Your task to perform on an android device: Do I have any events tomorrow? Image 0: 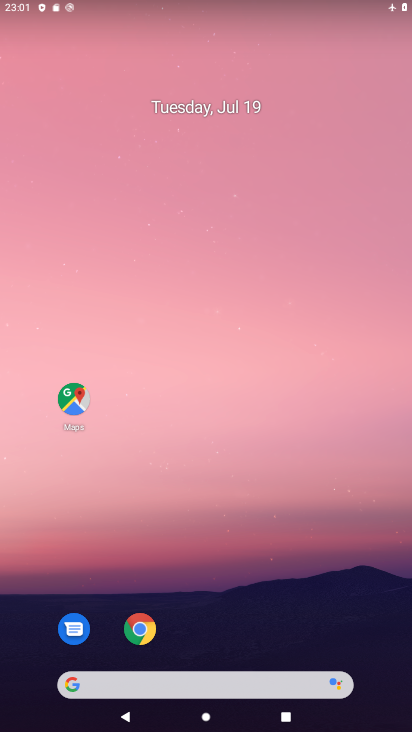
Step 0: press home button
Your task to perform on an android device: Do I have any events tomorrow? Image 1: 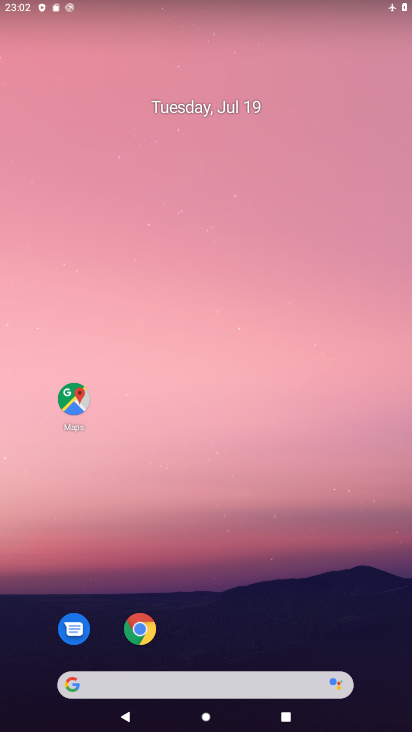
Step 1: drag from (224, 652) to (264, 74)
Your task to perform on an android device: Do I have any events tomorrow? Image 2: 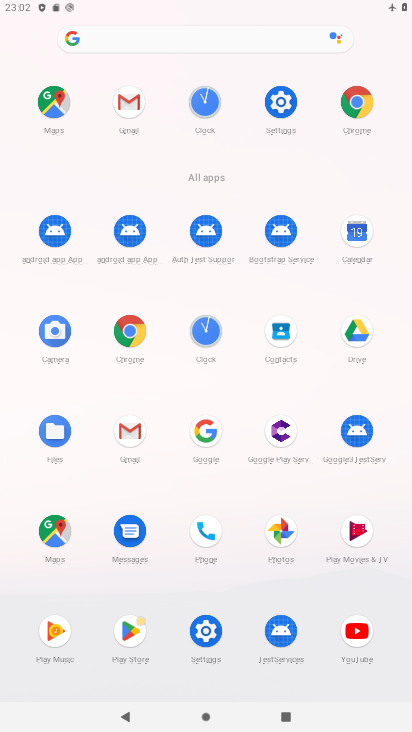
Step 2: click (350, 225)
Your task to perform on an android device: Do I have any events tomorrow? Image 3: 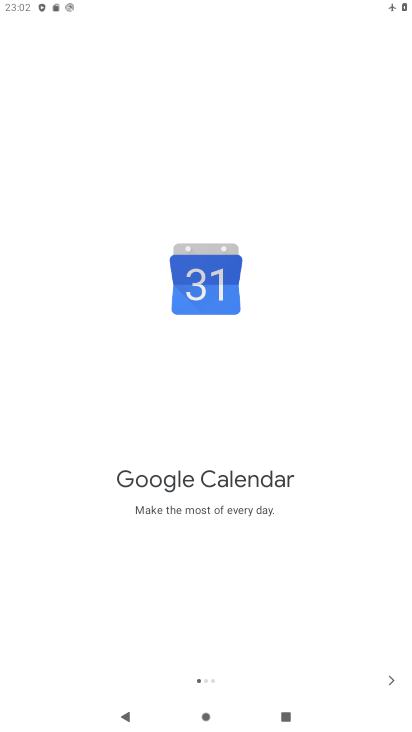
Step 3: click (392, 680)
Your task to perform on an android device: Do I have any events tomorrow? Image 4: 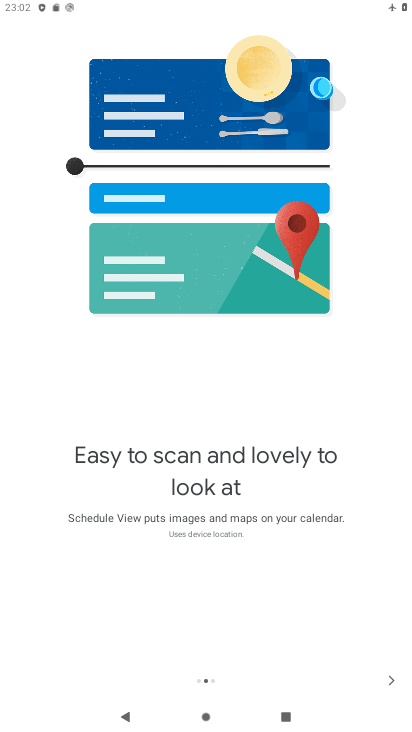
Step 4: click (392, 680)
Your task to perform on an android device: Do I have any events tomorrow? Image 5: 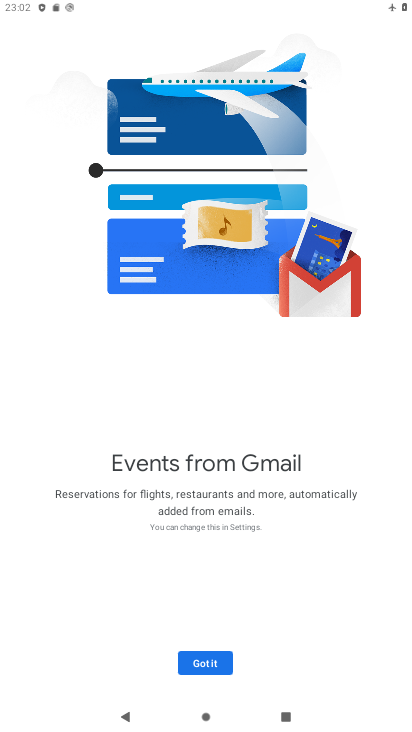
Step 5: click (195, 658)
Your task to perform on an android device: Do I have any events tomorrow? Image 6: 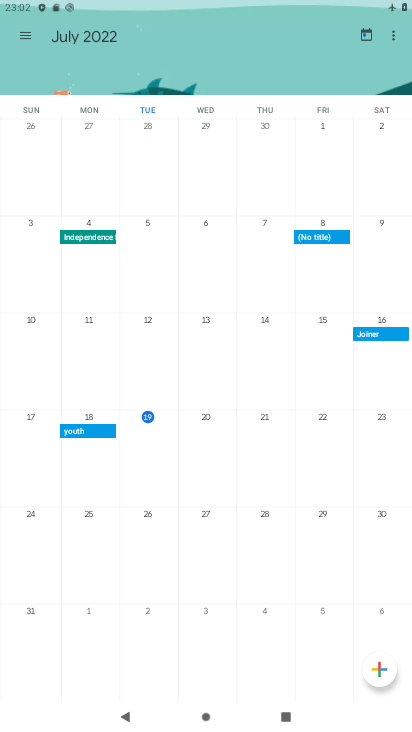
Step 6: click (22, 36)
Your task to perform on an android device: Do I have any events tomorrow? Image 7: 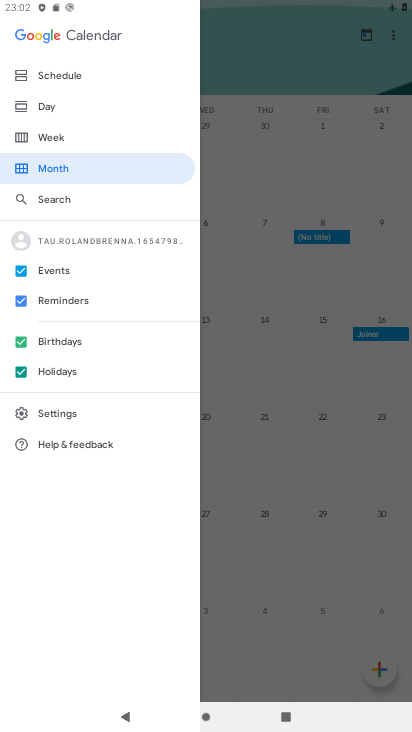
Step 7: click (22, 374)
Your task to perform on an android device: Do I have any events tomorrow? Image 8: 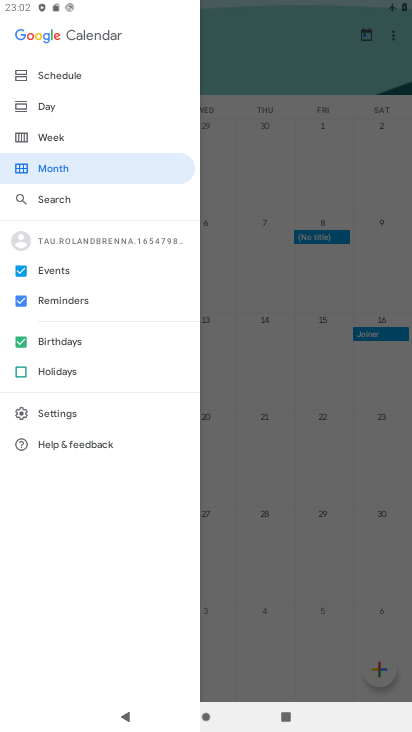
Step 8: click (22, 339)
Your task to perform on an android device: Do I have any events tomorrow? Image 9: 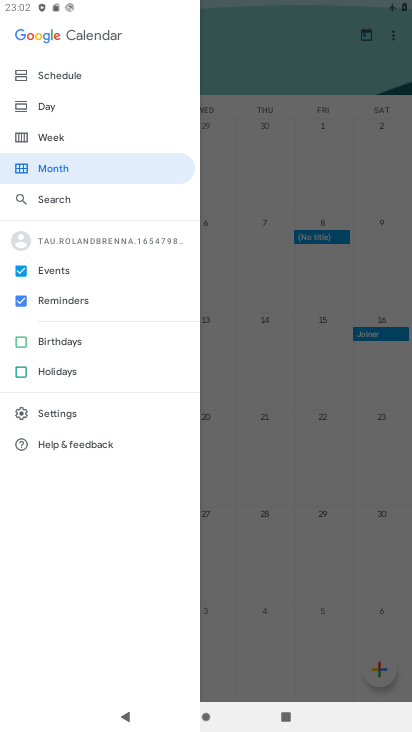
Step 9: click (22, 300)
Your task to perform on an android device: Do I have any events tomorrow? Image 10: 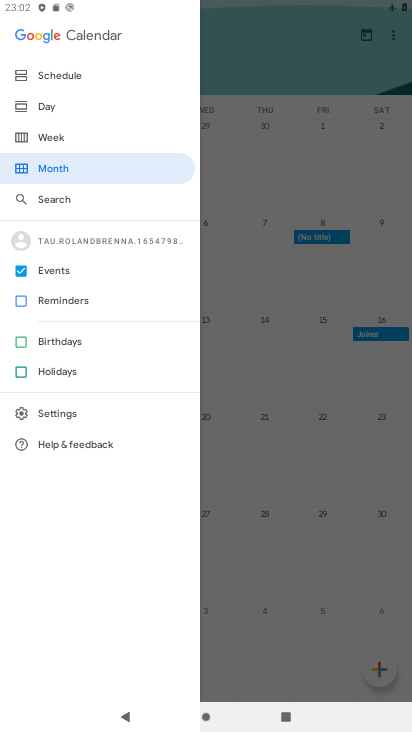
Step 10: click (41, 100)
Your task to perform on an android device: Do I have any events tomorrow? Image 11: 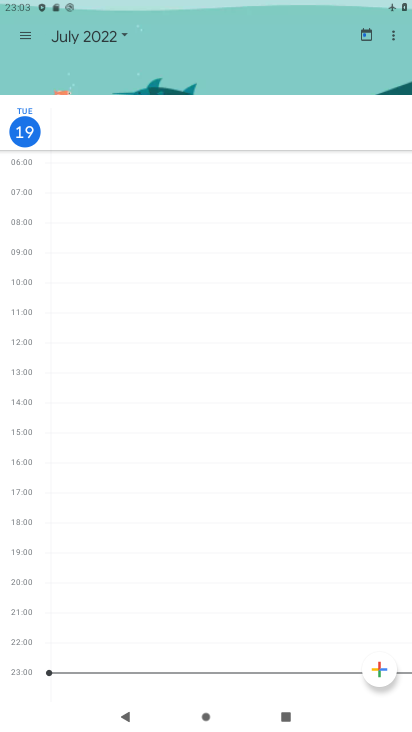
Step 11: click (123, 33)
Your task to perform on an android device: Do I have any events tomorrow? Image 12: 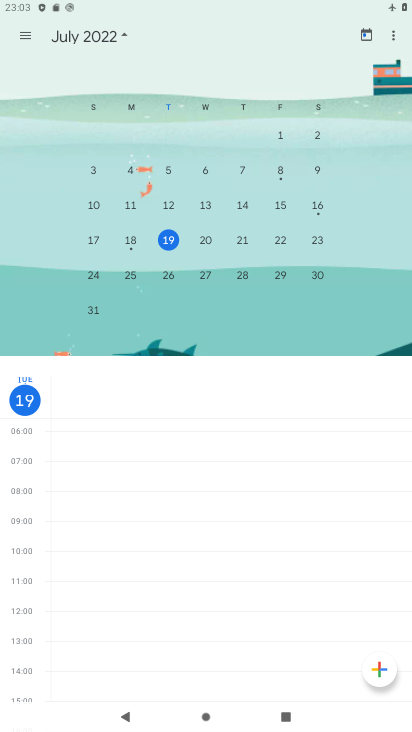
Step 12: click (205, 236)
Your task to perform on an android device: Do I have any events tomorrow? Image 13: 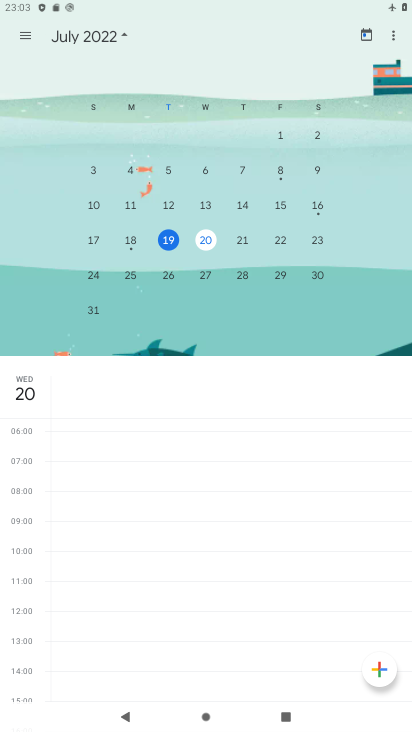
Step 13: click (32, 393)
Your task to perform on an android device: Do I have any events tomorrow? Image 14: 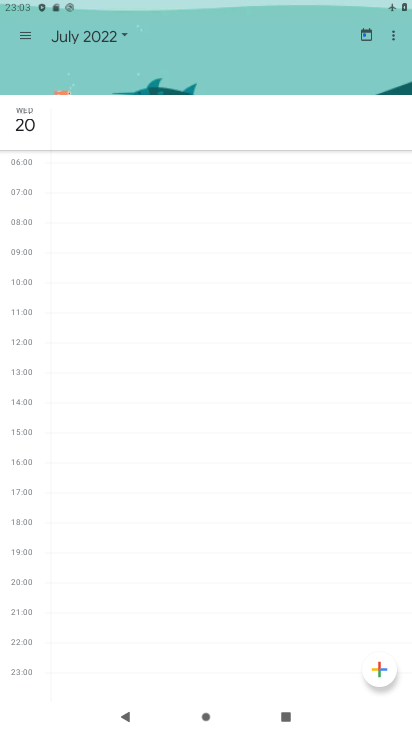
Step 14: task complete